Your task to perform on an android device: Open Chrome and go to settings Image 0: 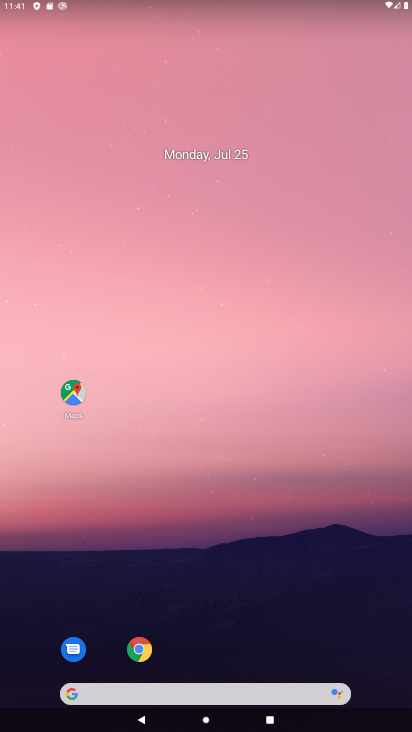
Step 0: drag from (212, 667) to (228, 11)
Your task to perform on an android device: Open Chrome and go to settings Image 1: 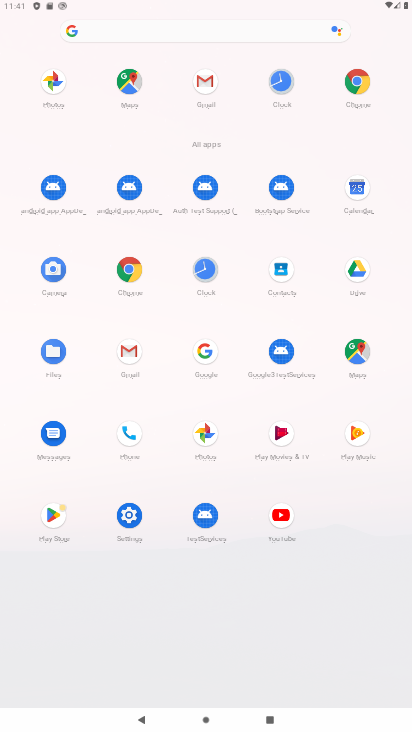
Step 1: click (355, 82)
Your task to perform on an android device: Open Chrome and go to settings Image 2: 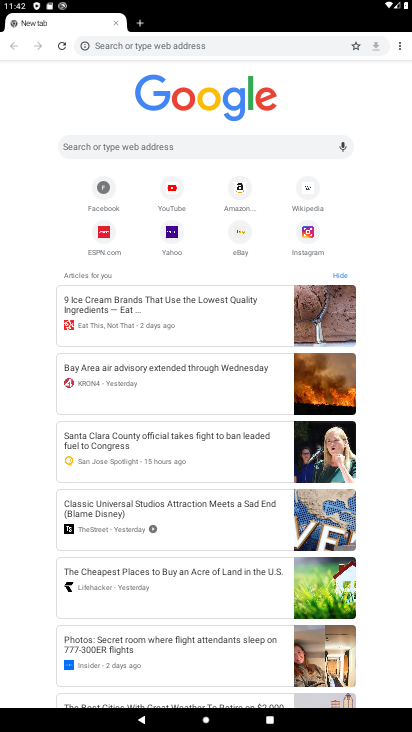
Step 2: click (396, 48)
Your task to perform on an android device: Open Chrome and go to settings Image 3: 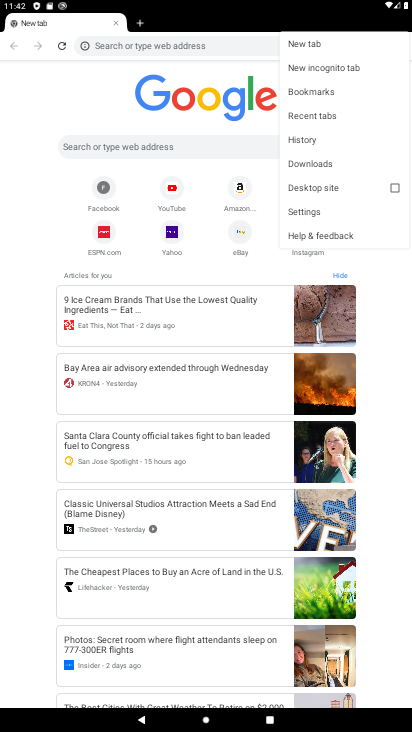
Step 3: click (322, 208)
Your task to perform on an android device: Open Chrome and go to settings Image 4: 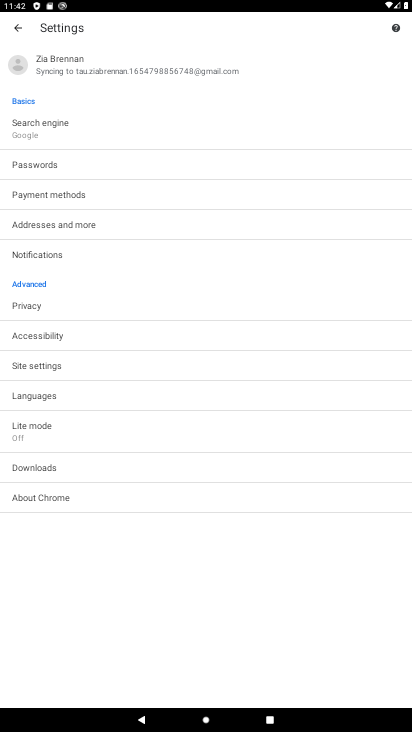
Step 4: task complete